Your task to perform on an android device: Open notification settings Image 0: 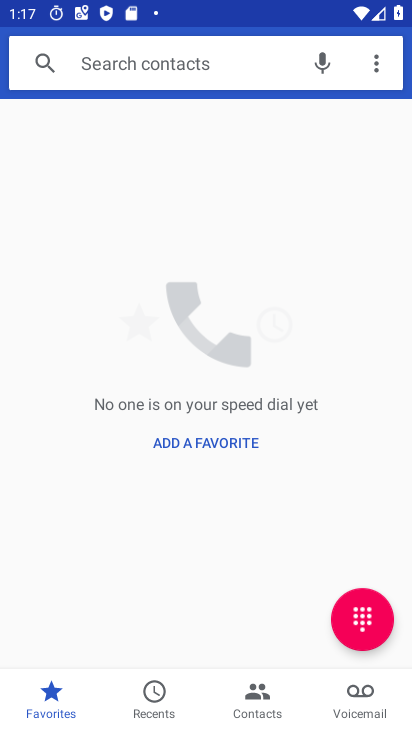
Step 0: press home button
Your task to perform on an android device: Open notification settings Image 1: 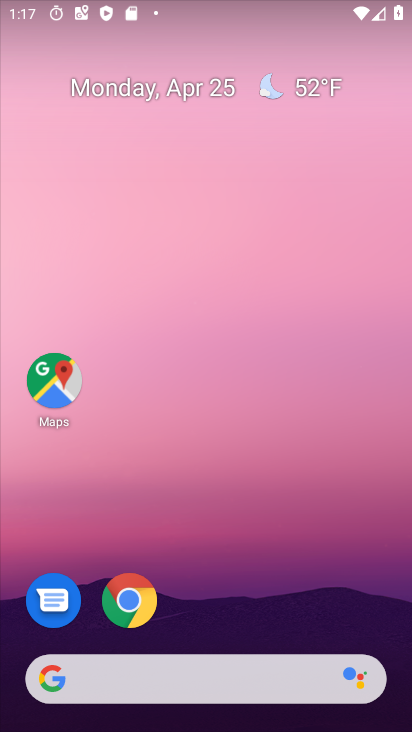
Step 1: drag from (199, 629) to (296, 66)
Your task to perform on an android device: Open notification settings Image 2: 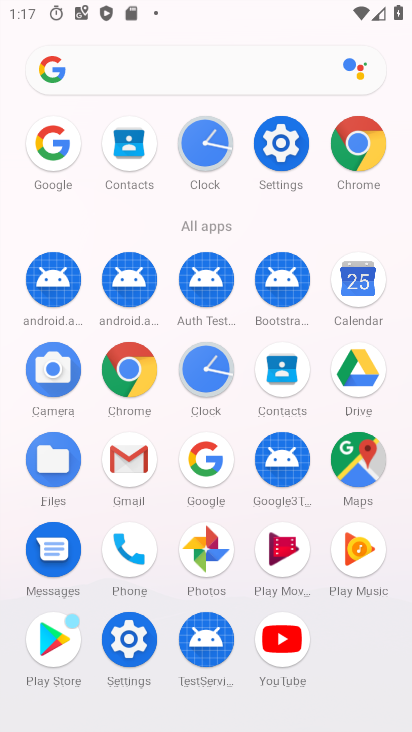
Step 2: click (275, 155)
Your task to perform on an android device: Open notification settings Image 3: 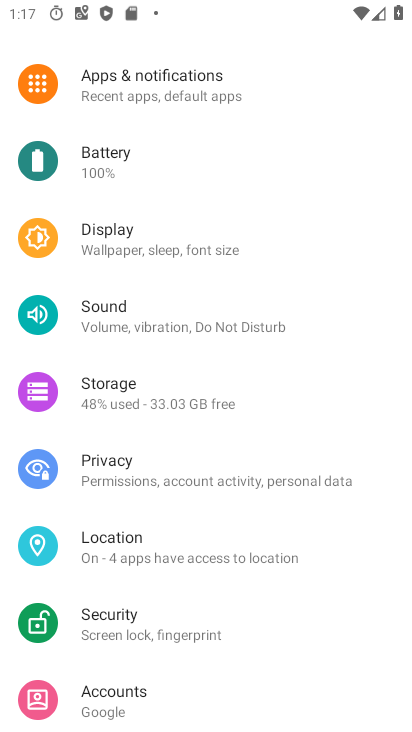
Step 3: click (194, 88)
Your task to perform on an android device: Open notification settings Image 4: 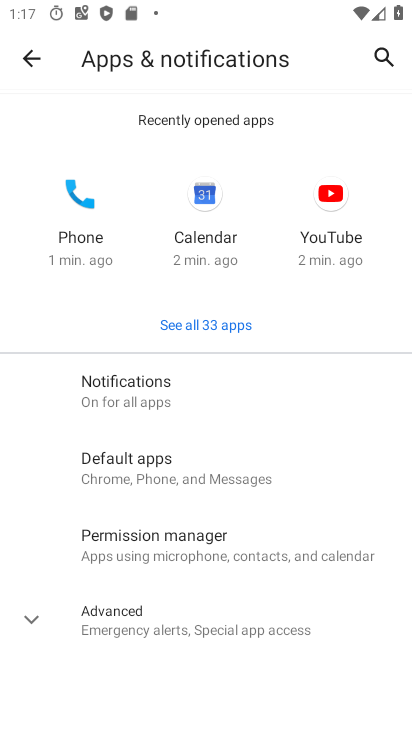
Step 4: click (147, 375)
Your task to perform on an android device: Open notification settings Image 5: 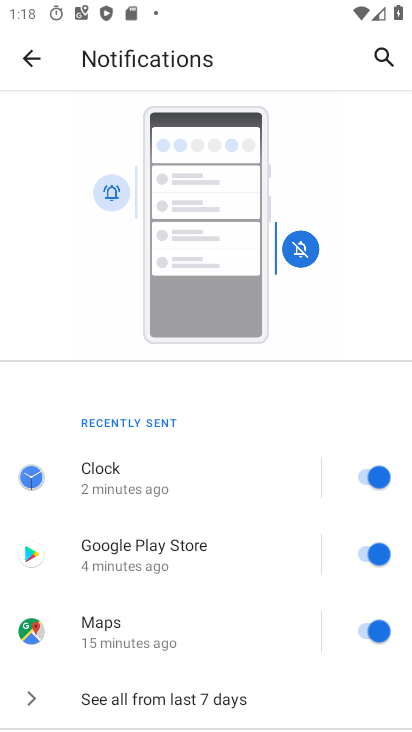
Step 5: task complete